Your task to perform on an android device: Open location settings Image 0: 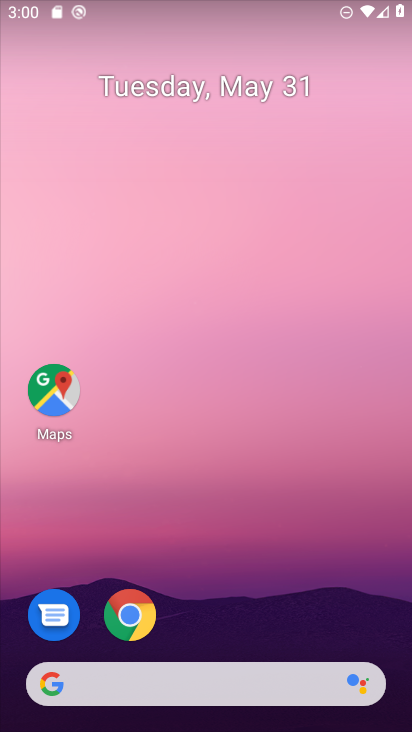
Step 0: drag from (258, 580) to (234, 205)
Your task to perform on an android device: Open location settings Image 1: 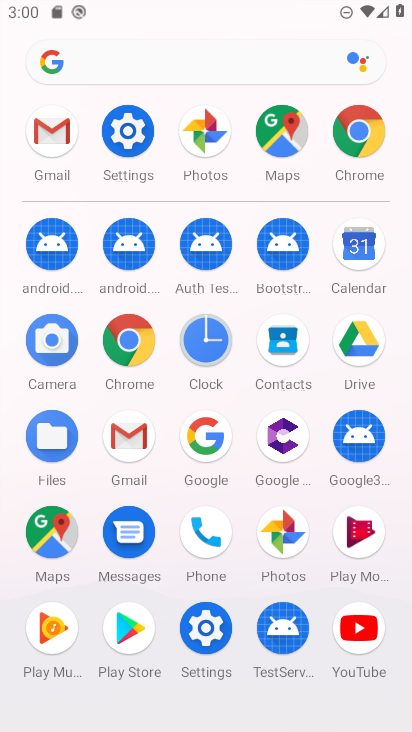
Step 1: click (216, 624)
Your task to perform on an android device: Open location settings Image 2: 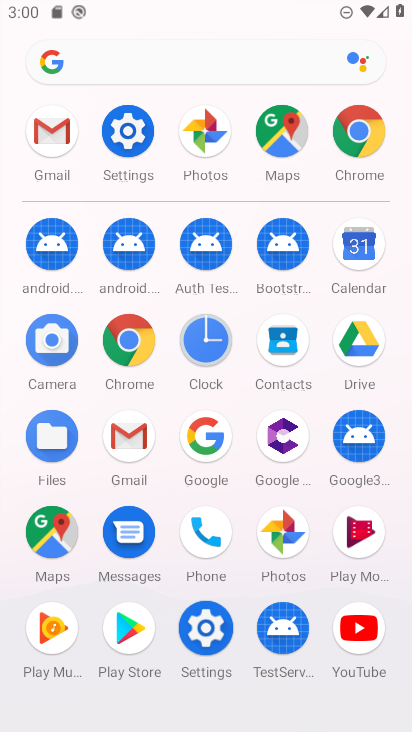
Step 2: click (215, 623)
Your task to perform on an android device: Open location settings Image 3: 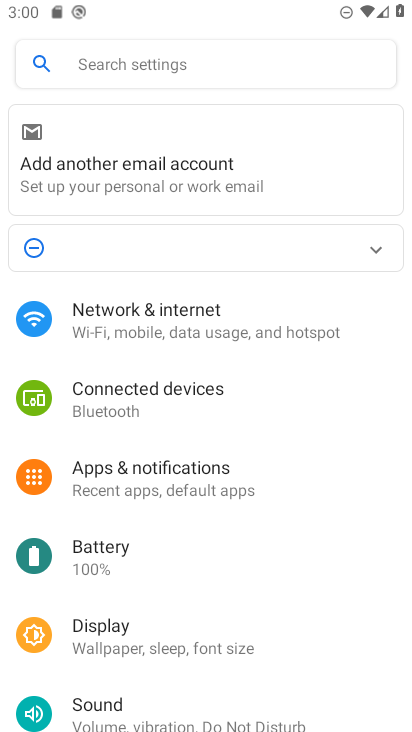
Step 3: drag from (138, 620) to (104, 241)
Your task to perform on an android device: Open location settings Image 4: 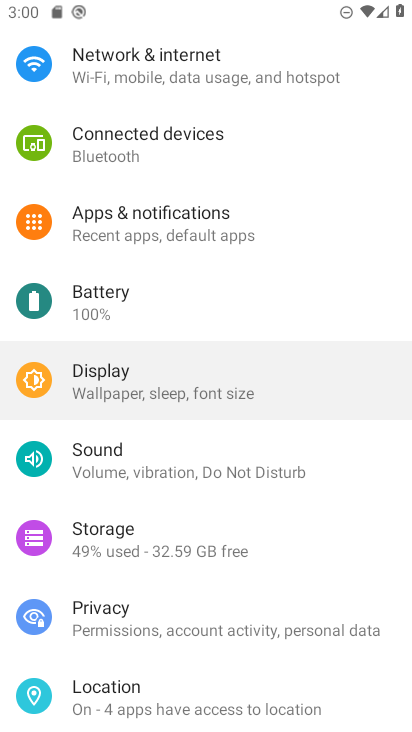
Step 4: drag from (105, 513) to (136, 302)
Your task to perform on an android device: Open location settings Image 5: 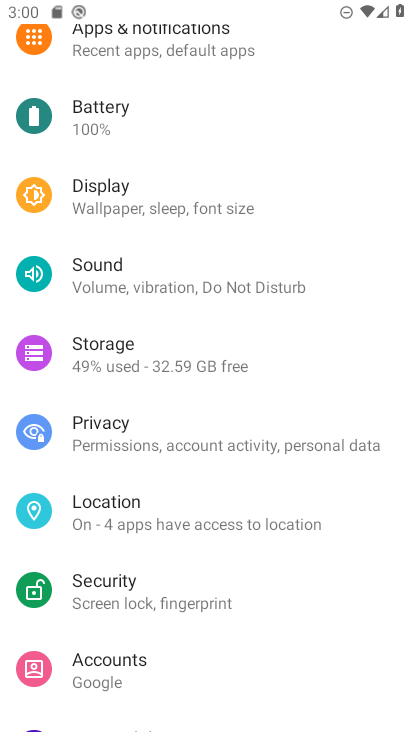
Step 5: click (132, 498)
Your task to perform on an android device: Open location settings Image 6: 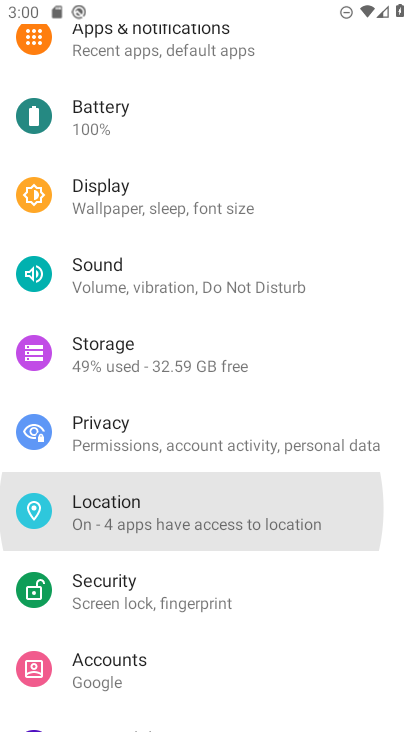
Step 6: click (132, 497)
Your task to perform on an android device: Open location settings Image 7: 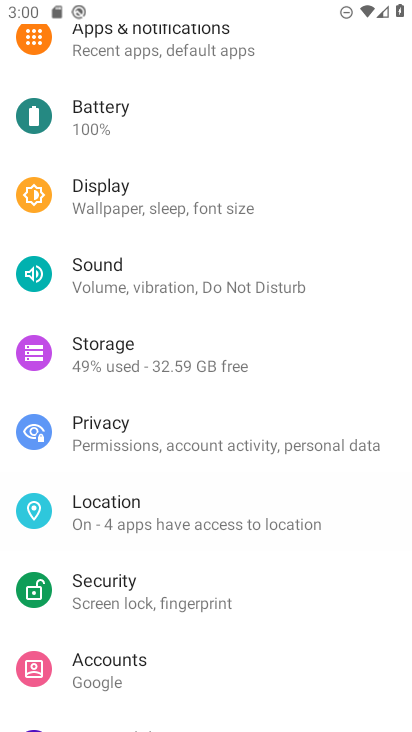
Step 7: click (132, 497)
Your task to perform on an android device: Open location settings Image 8: 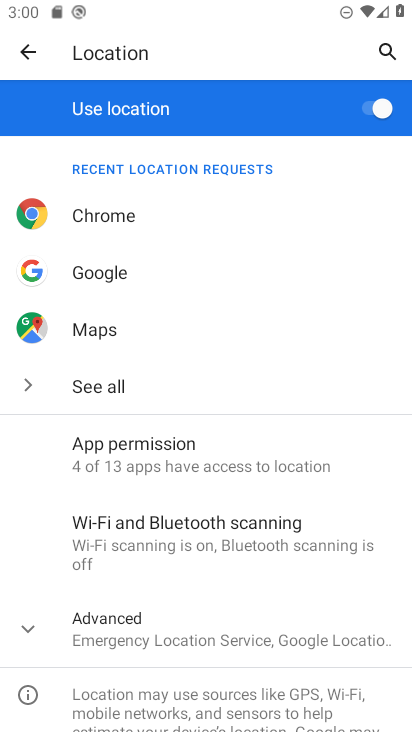
Step 8: task complete